Your task to perform on an android device: open app "Mercado Libre" (install if not already installed) Image 0: 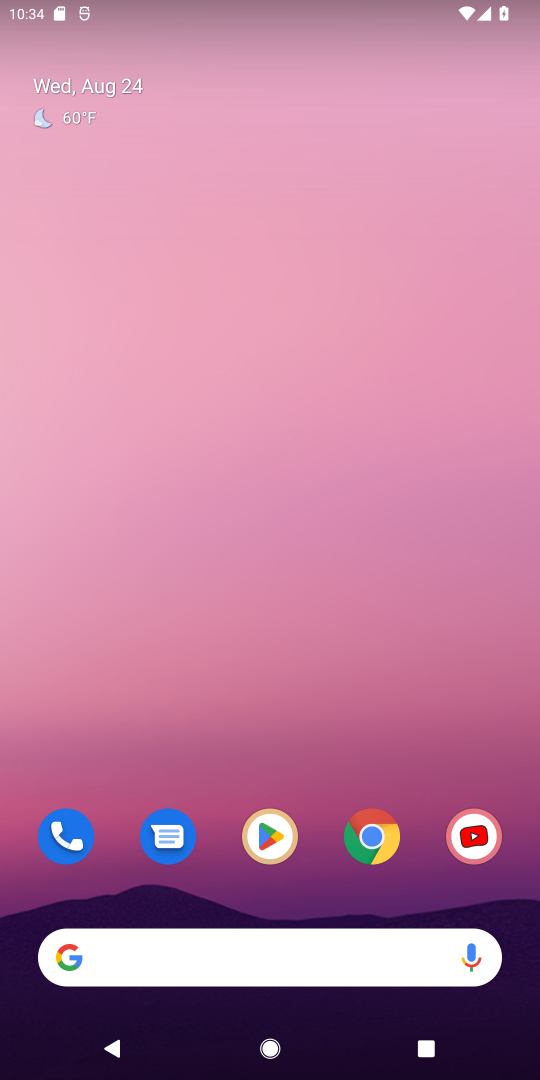
Step 0: click (240, 860)
Your task to perform on an android device: open app "Mercado Libre" (install if not already installed) Image 1: 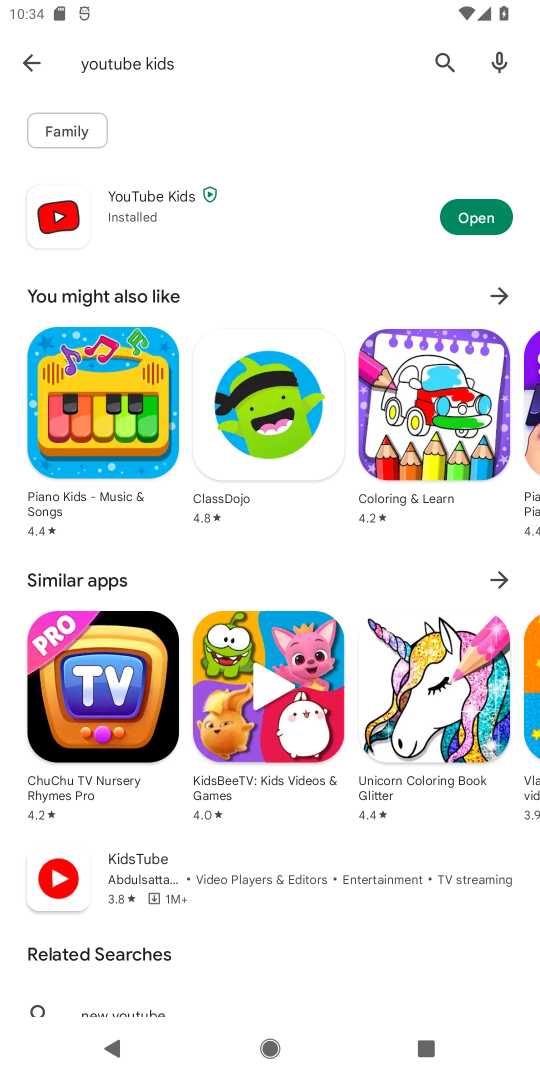
Step 1: click (432, 61)
Your task to perform on an android device: open app "Mercado Libre" (install if not already installed) Image 2: 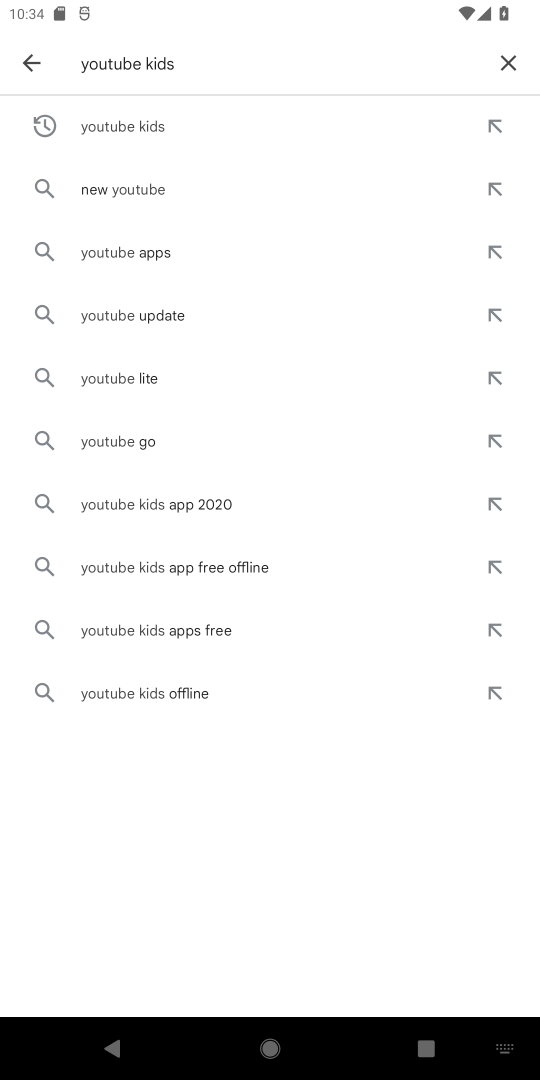
Step 2: click (499, 55)
Your task to perform on an android device: open app "Mercado Libre" (install if not already installed) Image 3: 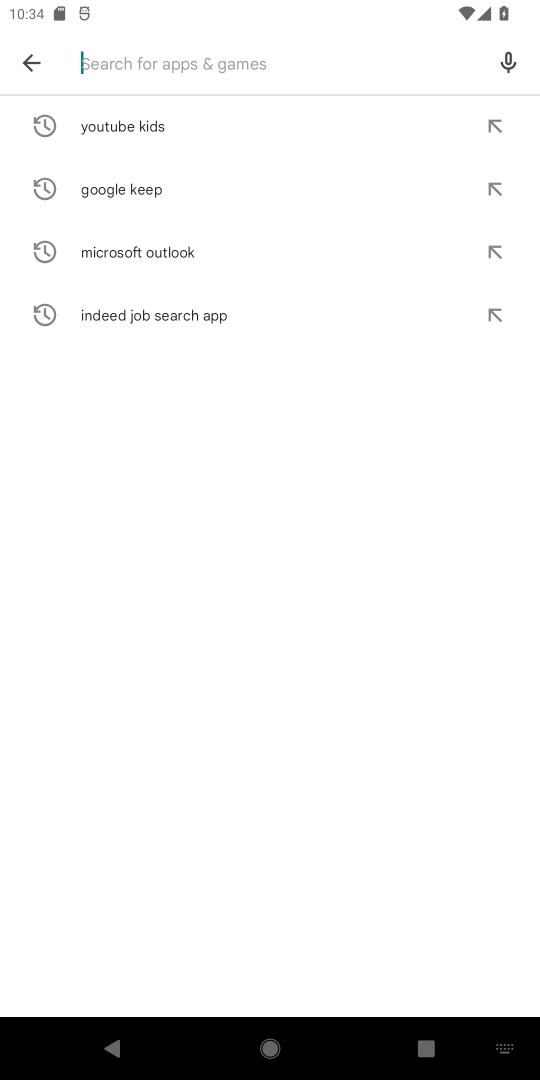
Step 3: type "Mercado Libr"
Your task to perform on an android device: open app "Mercado Libre" (install if not already installed) Image 4: 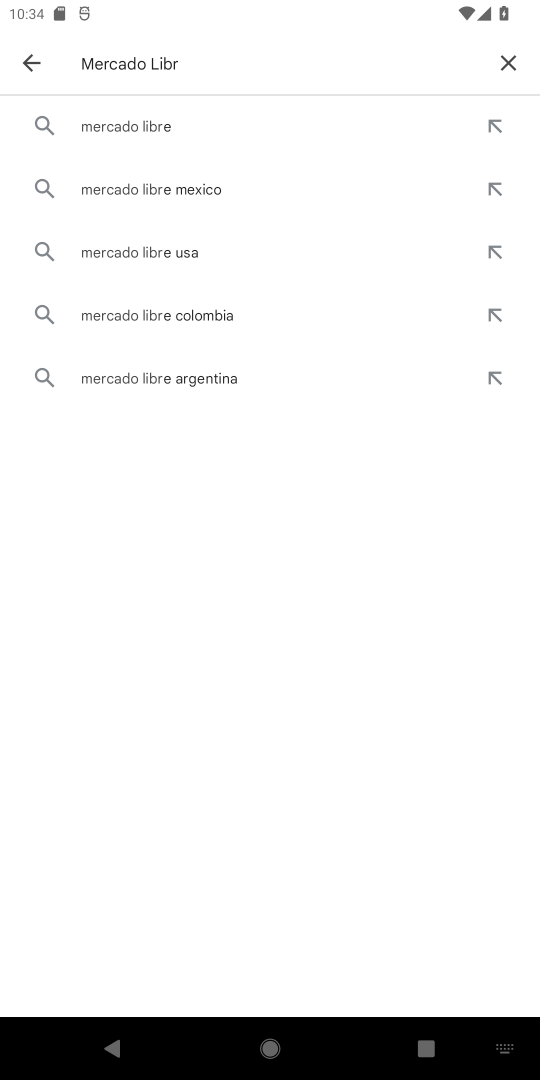
Step 4: click (153, 138)
Your task to perform on an android device: open app "Mercado Libre" (install if not already installed) Image 5: 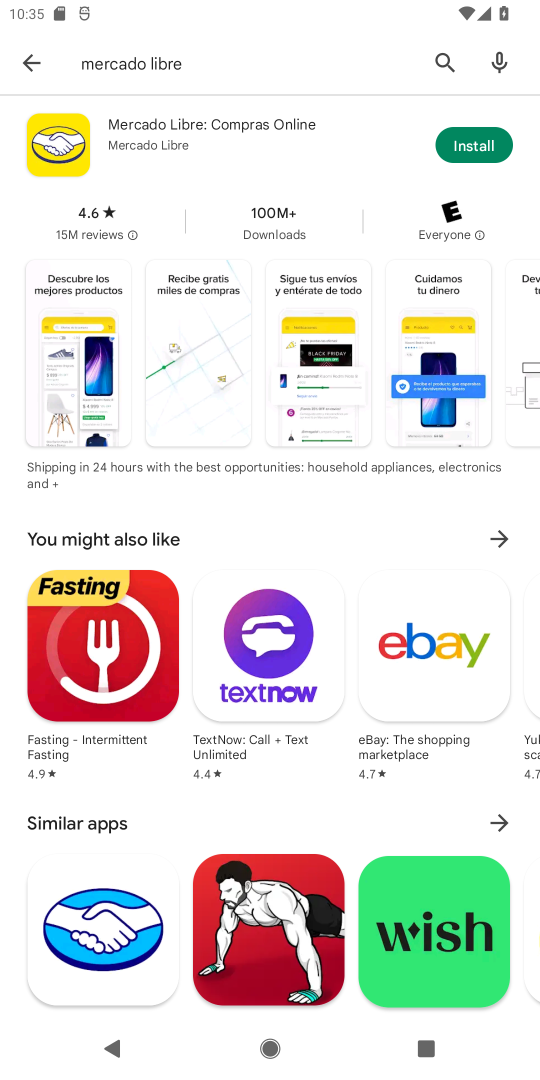
Step 5: click (484, 155)
Your task to perform on an android device: open app "Mercado Libre" (install if not already installed) Image 6: 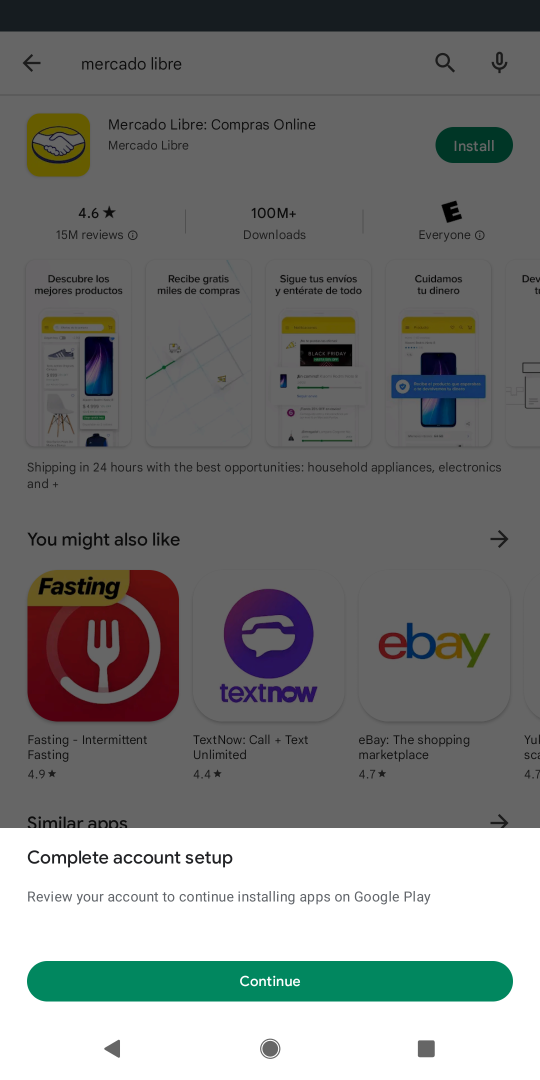
Step 6: click (341, 970)
Your task to perform on an android device: open app "Mercado Libre" (install if not already installed) Image 7: 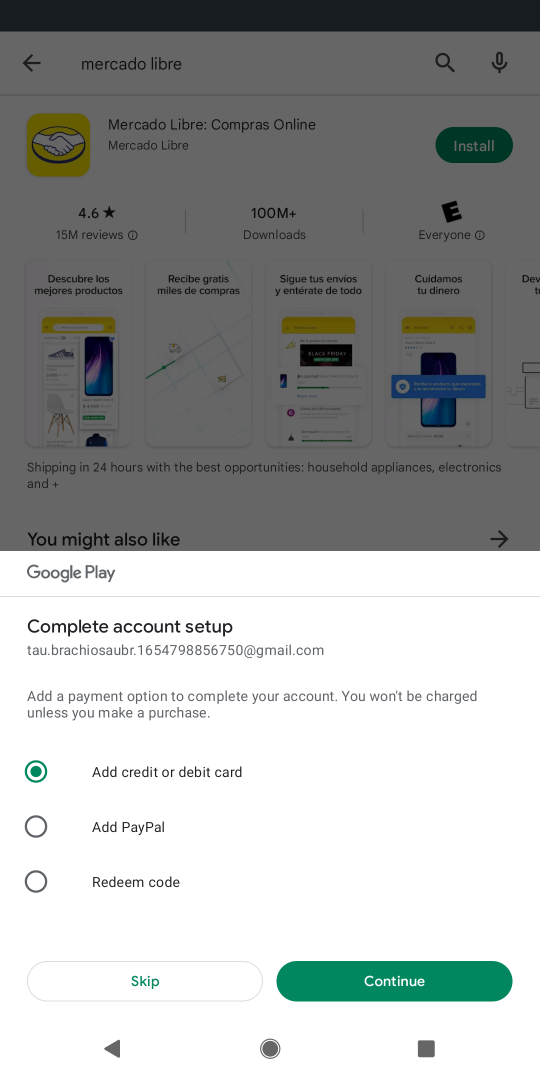
Step 7: click (189, 976)
Your task to perform on an android device: open app "Mercado Libre" (install if not already installed) Image 8: 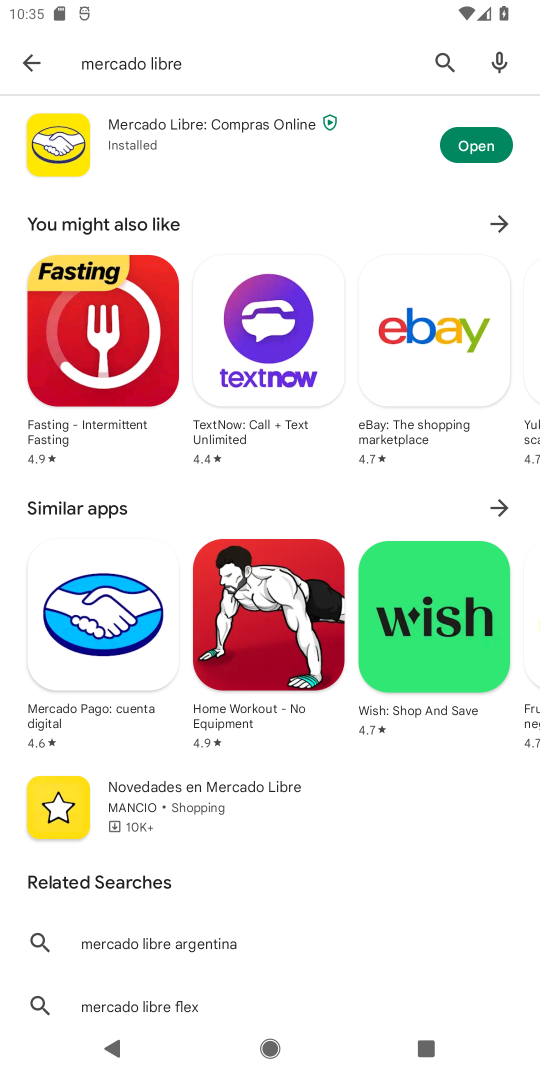
Step 8: click (474, 155)
Your task to perform on an android device: open app "Mercado Libre" (install if not already installed) Image 9: 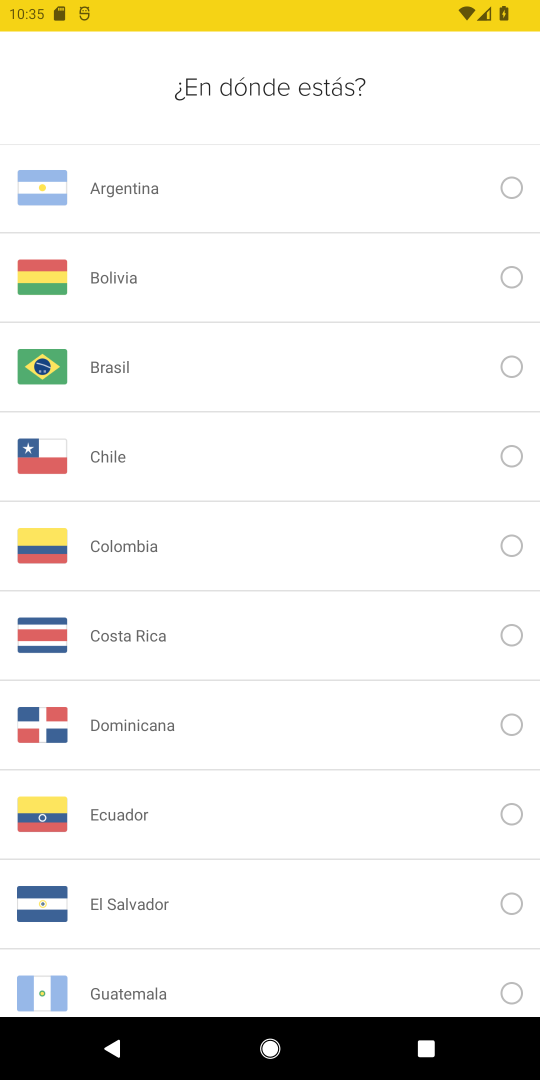
Step 9: task complete